Your task to perform on an android device: read, delete, or share a saved page in the chrome app Image 0: 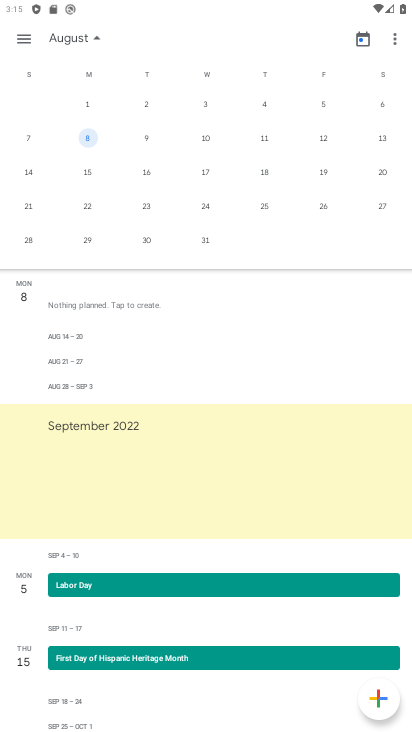
Step 0: press back button
Your task to perform on an android device: read, delete, or share a saved page in the chrome app Image 1: 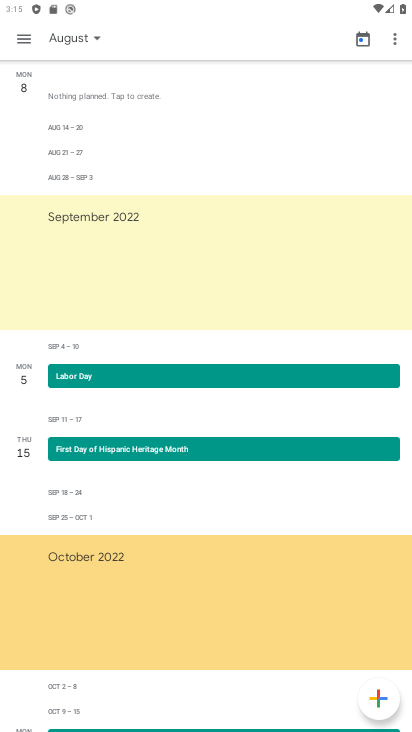
Step 1: press back button
Your task to perform on an android device: read, delete, or share a saved page in the chrome app Image 2: 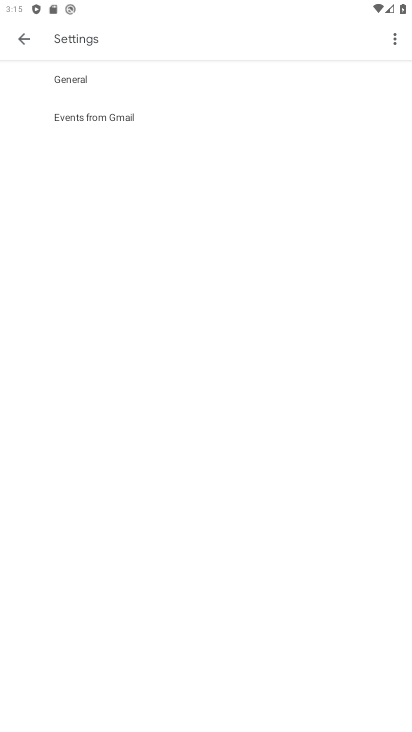
Step 2: press back button
Your task to perform on an android device: read, delete, or share a saved page in the chrome app Image 3: 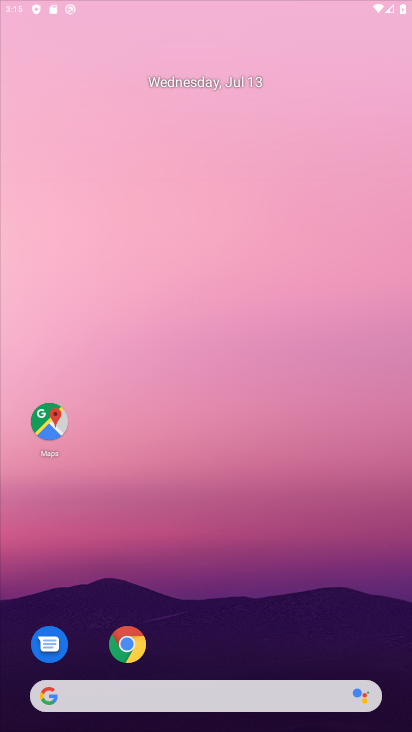
Step 3: press back button
Your task to perform on an android device: read, delete, or share a saved page in the chrome app Image 4: 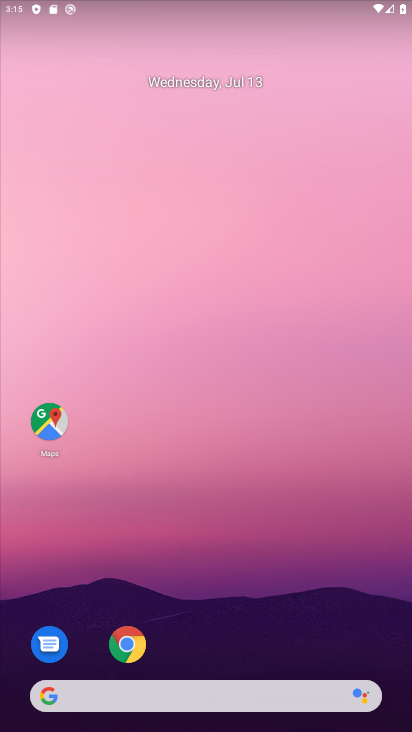
Step 4: press back button
Your task to perform on an android device: read, delete, or share a saved page in the chrome app Image 5: 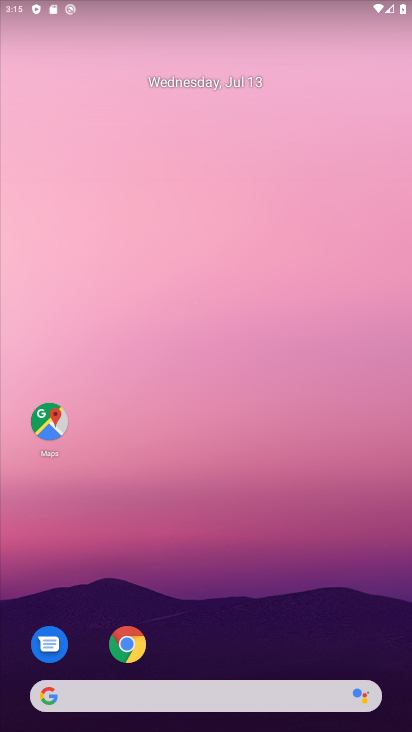
Step 5: click (111, 650)
Your task to perform on an android device: read, delete, or share a saved page in the chrome app Image 6: 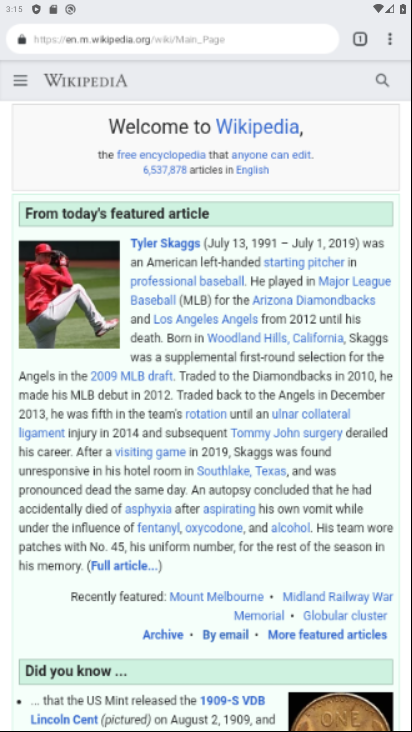
Step 6: click (125, 644)
Your task to perform on an android device: read, delete, or share a saved page in the chrome app Image 7: 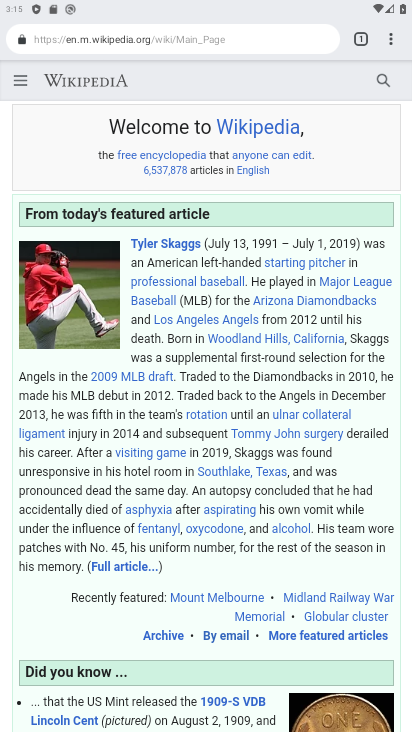
Step 7: drag from (392, 38) to (248, 257)
Your task to perform on an android device: read, delete, or share a saved page in the chrome app Image 8: 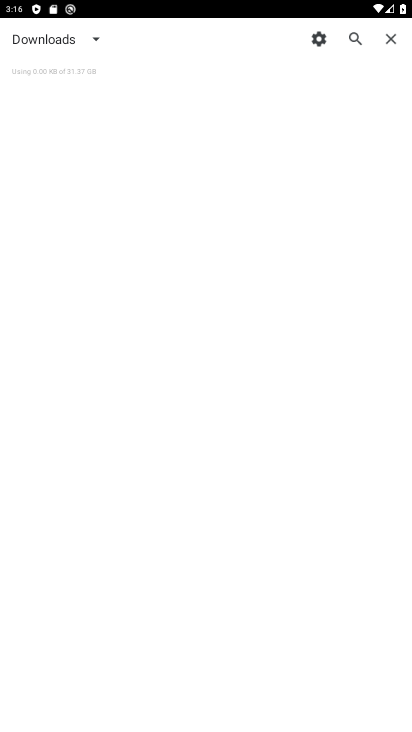
Step 8: click (90, 46)
Your task to perform on an android device: read, delete, or share a saved page in the chrome app Image 9: 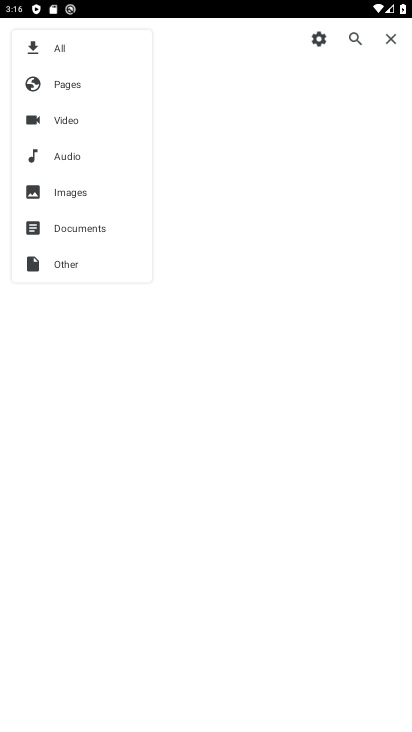
Step 9: click (63, 86)
Your task to perform on an android device: read, delete, or share a saved page in the chrome app Image 10: 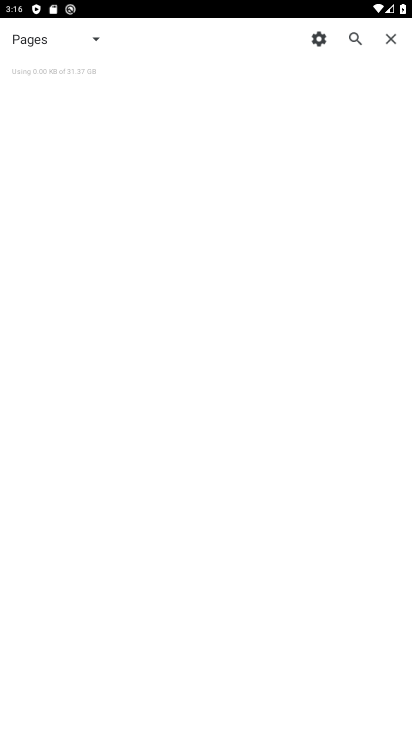
Step 10: task complete